Your task to perform on an android device: clear history in the chrome app Image 0: 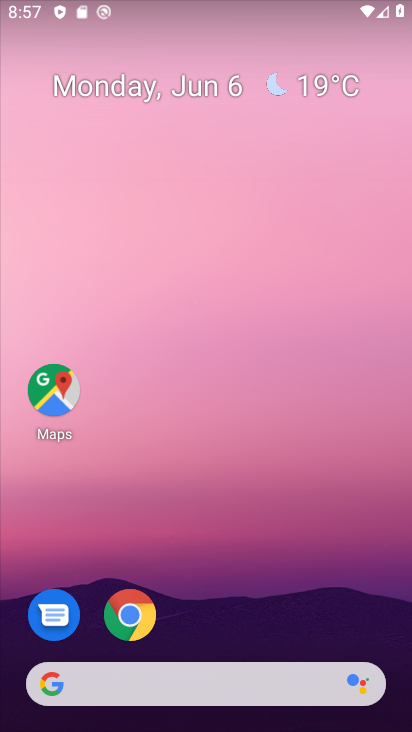
Step 0: click (125, 608)
Your task to perform on an android device: clear history in the chrome app Image 1: 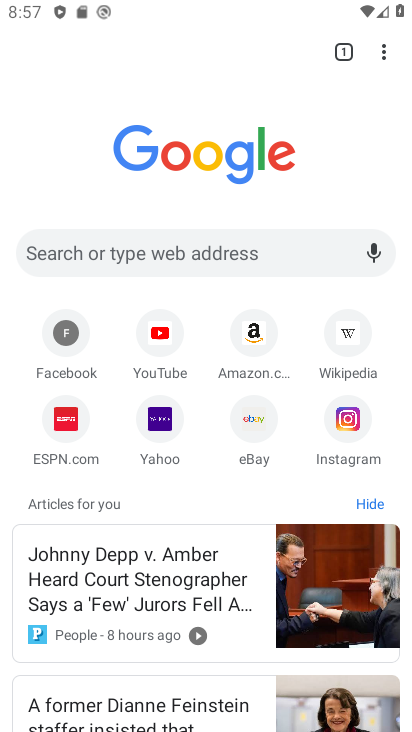
Step 1: click (380, 58)
Your task to perform on an android device: clear history in the chrome app Image 2: 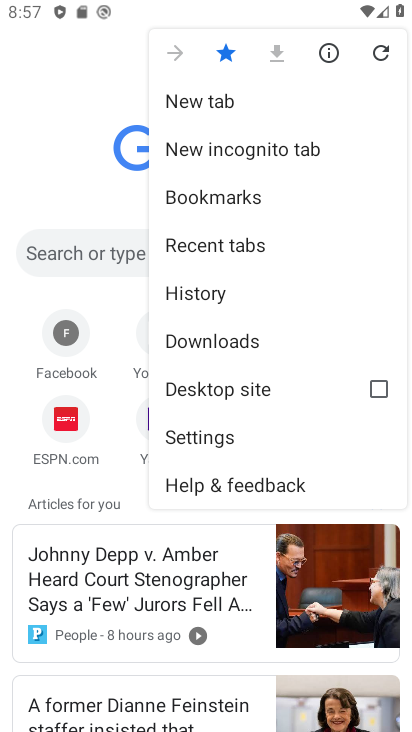
Step 2: click (176, 289)
Your task to perform on an android device: clear history in the chrome app Image 3: 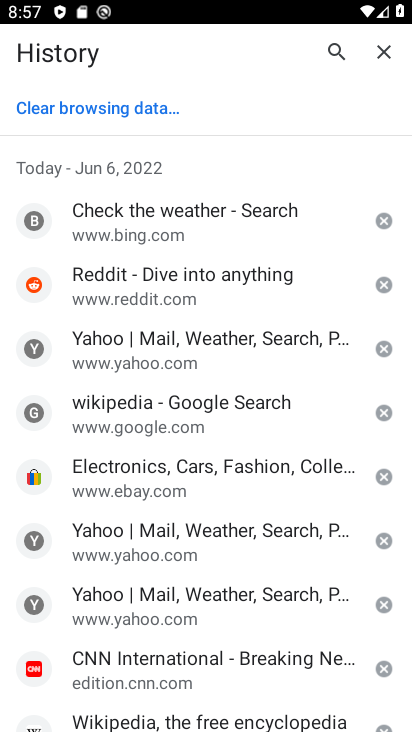
Step 3: click (78, 115)
Your task to perform on an android device: clear history in the chrome app Image 4: 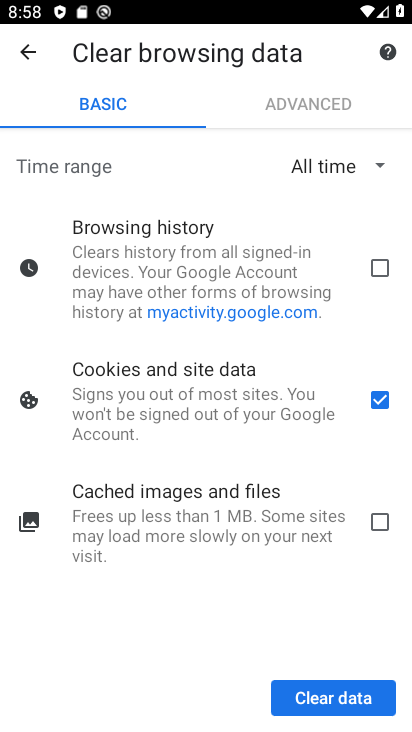
Step 4: click (359, 531)
Your task to perform on an android device: clear history in the chrome app Image 5: 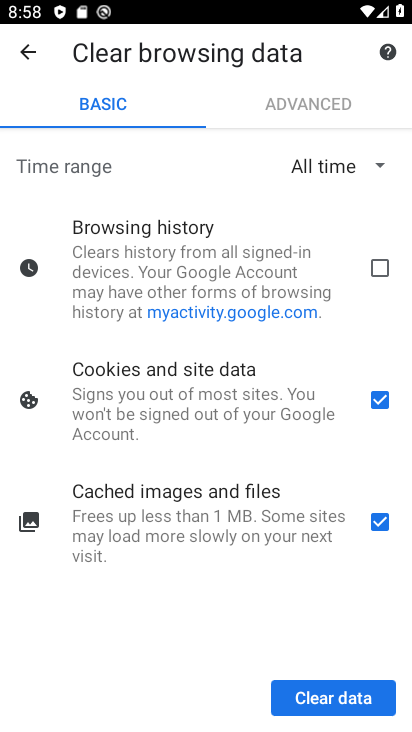
Step 5: click (341, 699)
Your task to perform on an android device: clear history in the chrome app Image 6: 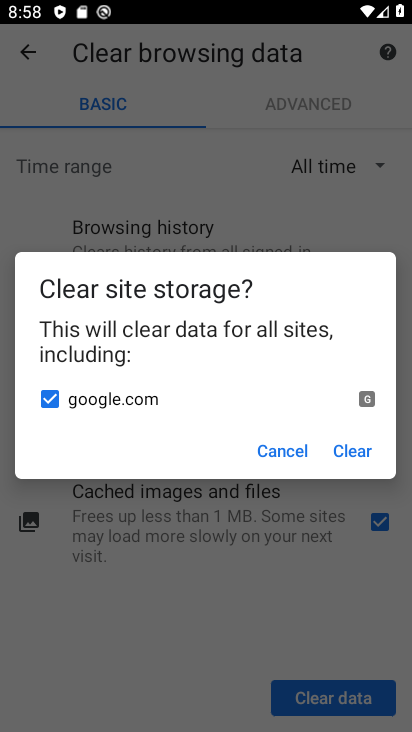
Step 6: click (348, 441)
Your task to perform on an android device: clear history in the chrome app Image 7: 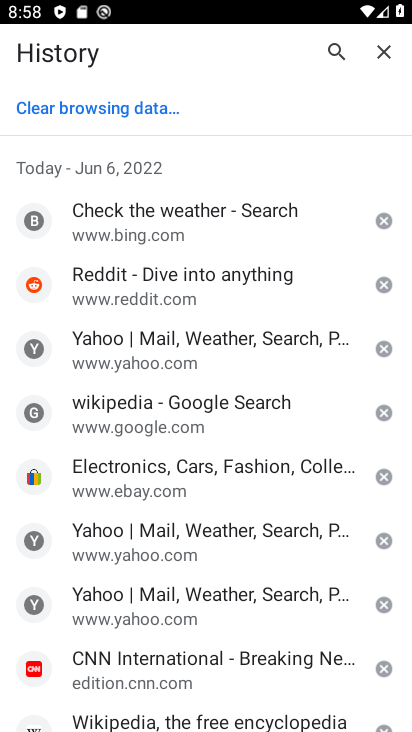
Step 7: task complete